Your task to perform on an android device: open a bookmark in the chrome app Image 0: 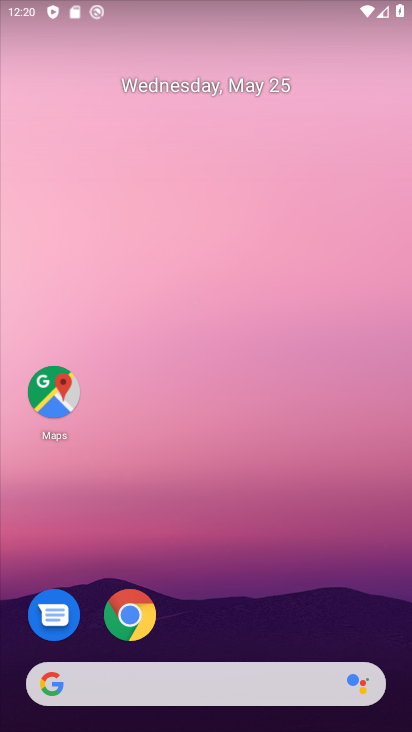
Step 0: click (128, 618)
Your task to perform on an android device: open a bookmark in the chrome app Image 1: 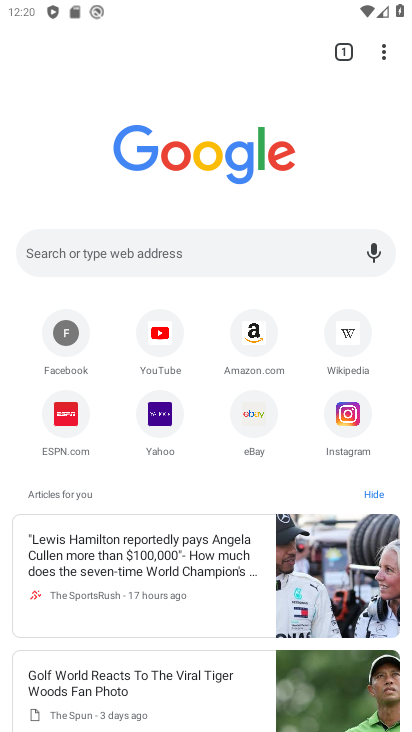
Step 1: click (389, 52)
Your task to perform on an android device: open a bookmark in the chrome app Image 2: 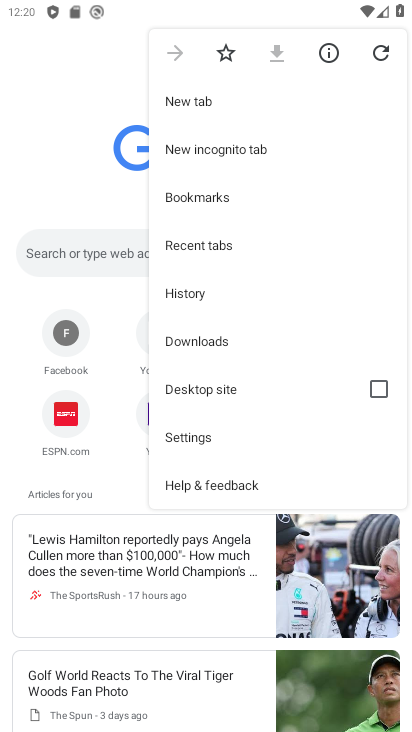
Step 2: click (230, 214)
Your task to perform on an android device: open a bookmark in the chrome app Image 3: 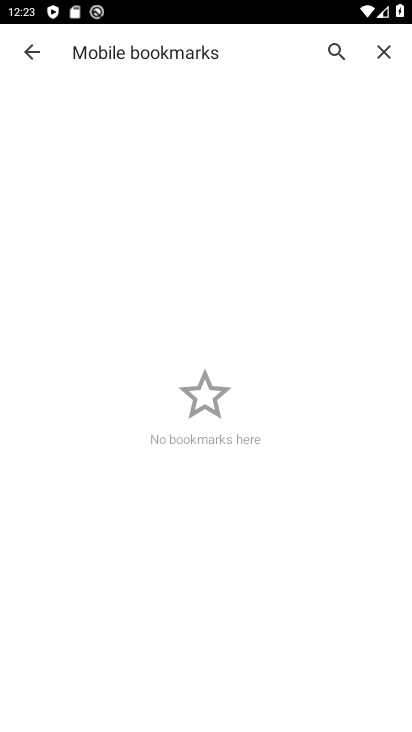
Step 3: task complete